Your task to perform on an android device: create a new album in the google photos Image 0: 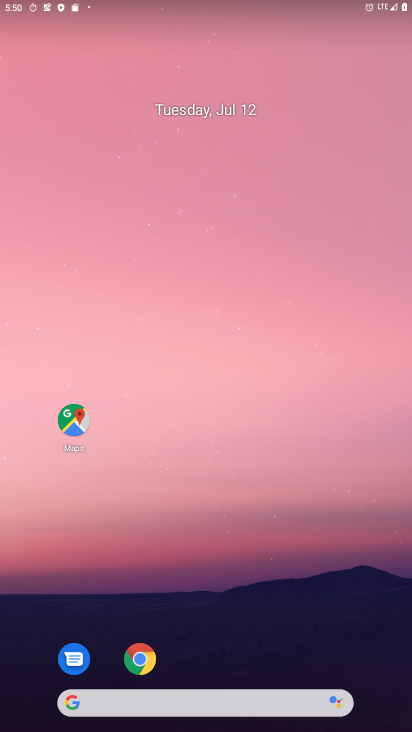
Step 0: drag from (174, 609) to (163, 183)
Your task to perform on an android device: create a new album in the google photos Image 1: 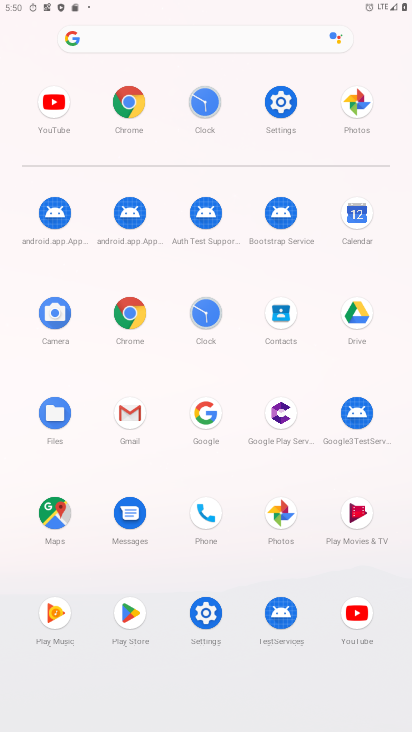
Step 1: click (275, 533)
Your task to perform on an android device: create a new album in the google photos Image 2: 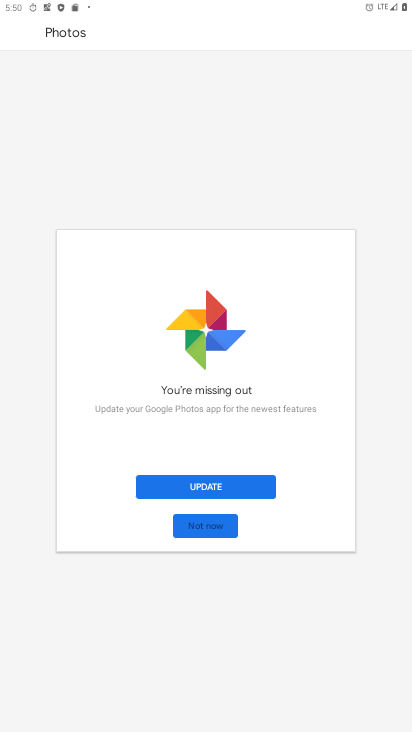
Step 2: click (193, 529)
Your task to perform on an android device: create a new album in the google photos Image 3: 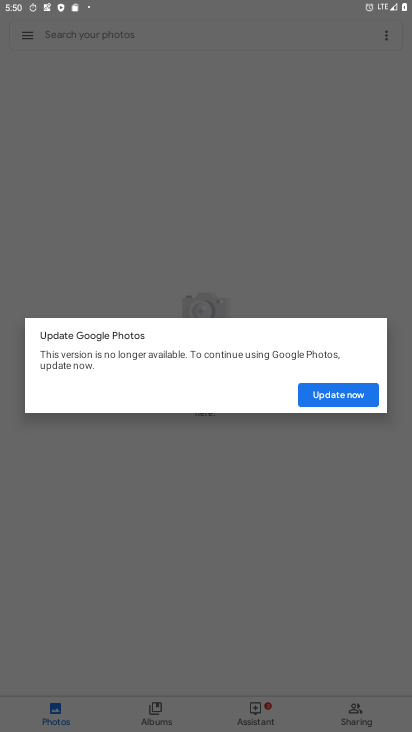
Step 3: click (344, 386)
Your task to perform on an android device: create a new album in the google photos Image 4: 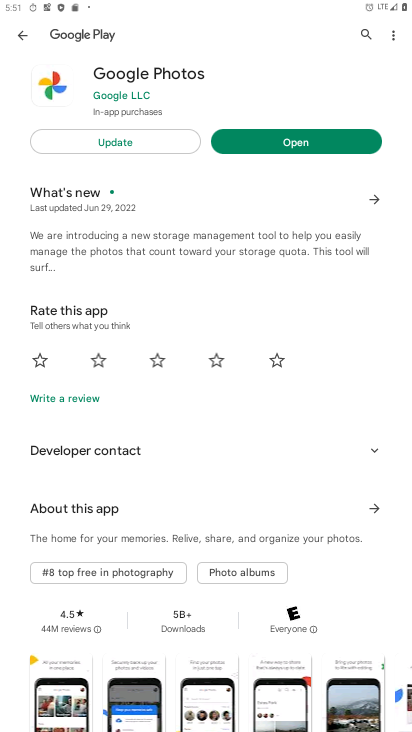
Step 4: click (109, 143)
Your task to perform on an android device: create a new album in the google photos Image 5: 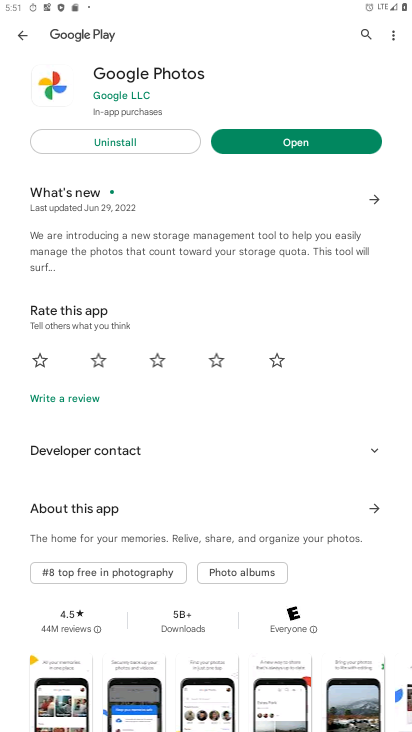
Step 5: click (271, 138)
Your task to perform on an android device: create a new album in the google photos Image 6: 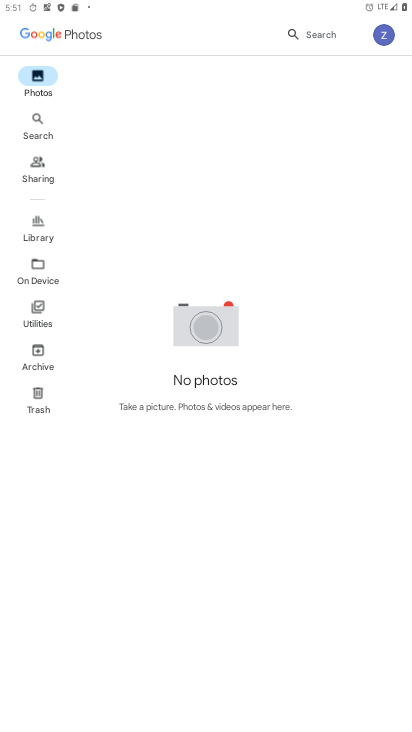
Step 6: click (30, 224)
Your task to perform on an android device: create a new album in the google photos Image 7: 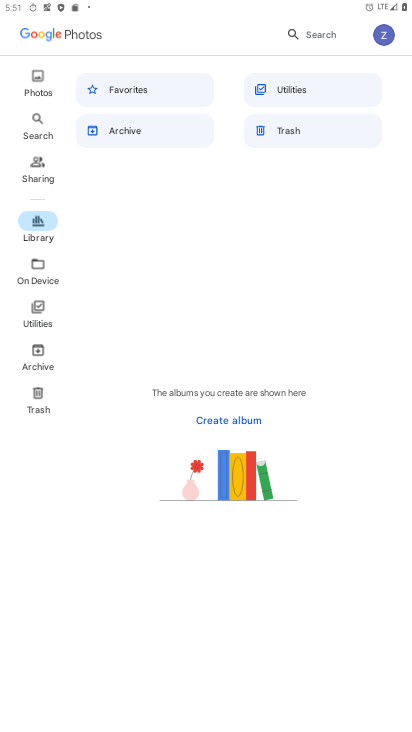
Step 7: drag from (230, 288) to (225, 390)
Your task to perform on an android device: create a new album in the google photos Image 8: 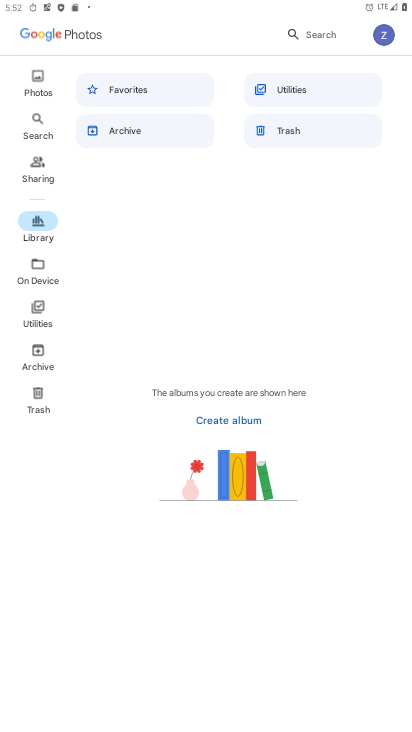
Step 8: click (225, 420)
Your task to perform on an android device: create a new album in the google photos Image 9: 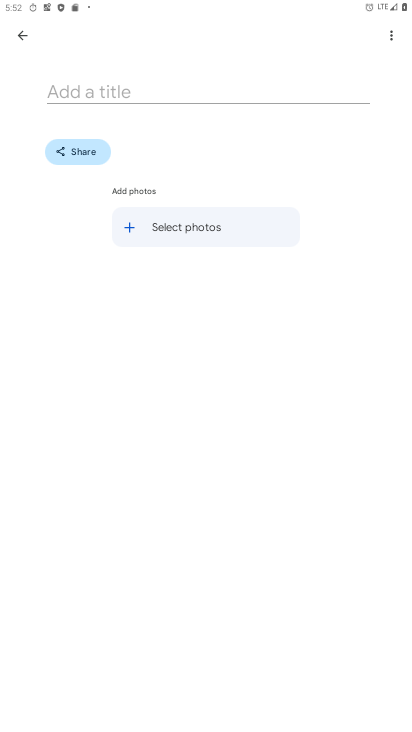
Step 9: click (169, 86)
Your task to perform on an android device: create a new album in the google photos Image 10: 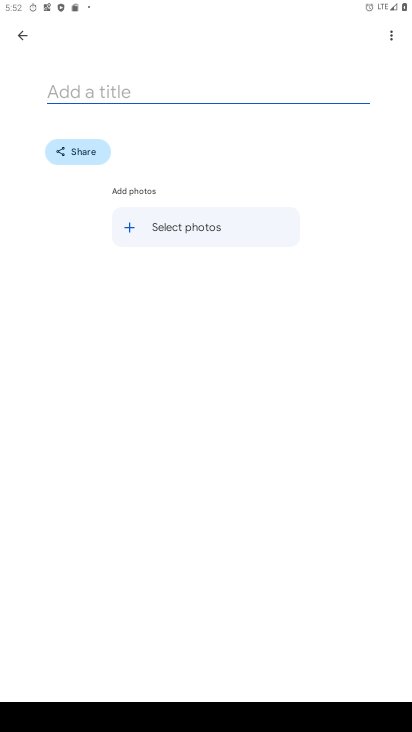
Step 10: type "Panipat"
Your task to perform on an android device: create a new album in the google photos Image 11: 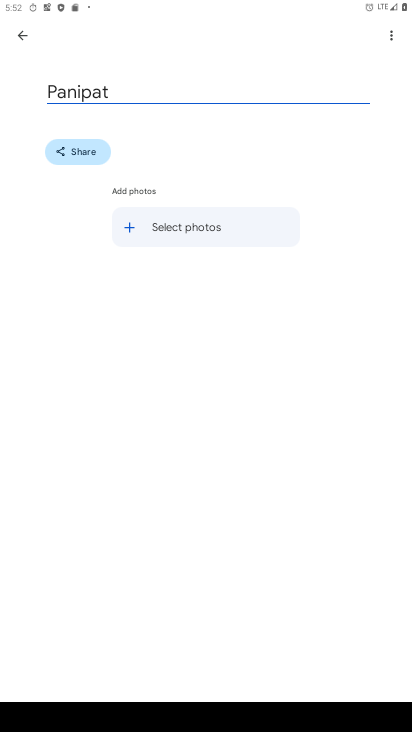
Step 11: click (168, 226)
Your task to perform on an android device: create a new album in the google photos Image 12: 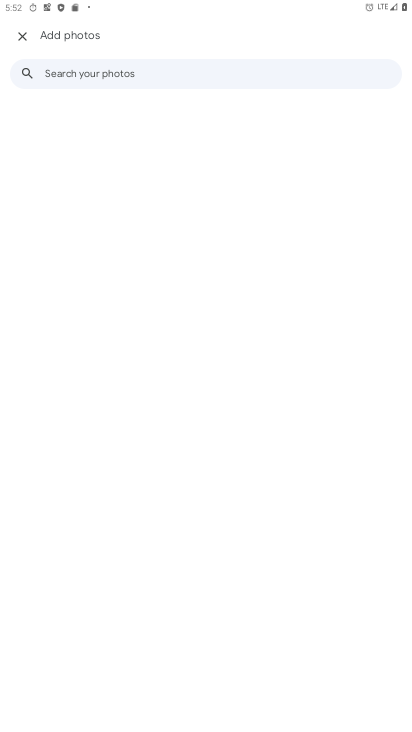
Step 12: click (56, 67)
Your task to perform on an android device: create a new album in the google photos Image 13: 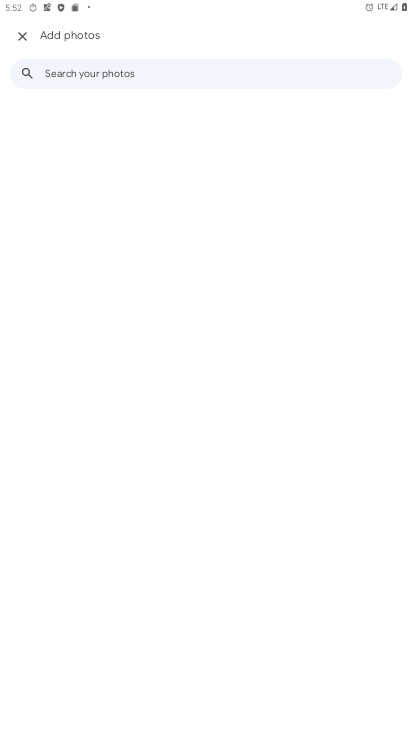
Step 13: click (56, 67)
Your task to perform on an android device: create a new album in the google photos Image 14: 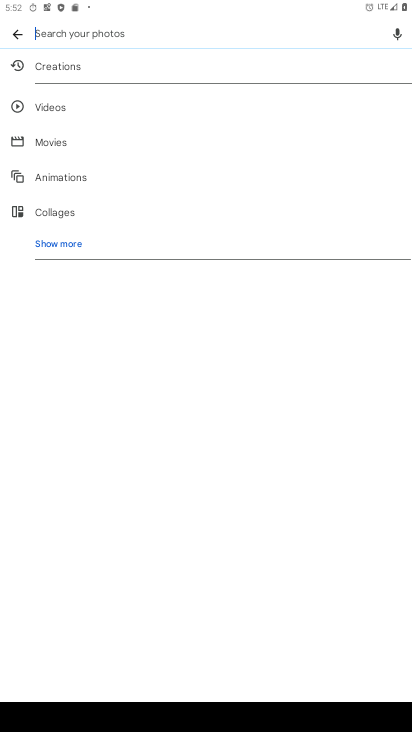
Step 14: click (74, 239)
Your task to perform on an android device: create a new album in the google photos Image 15: 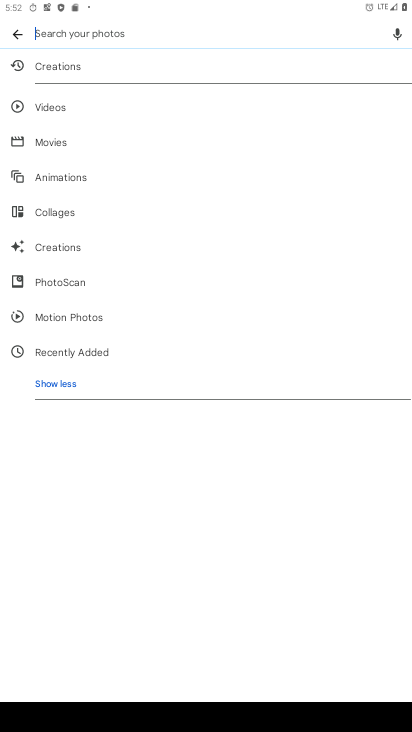
Step 15: click (53, 254)
Your task to perform on an android device: create a new album in the google photos Image 16: 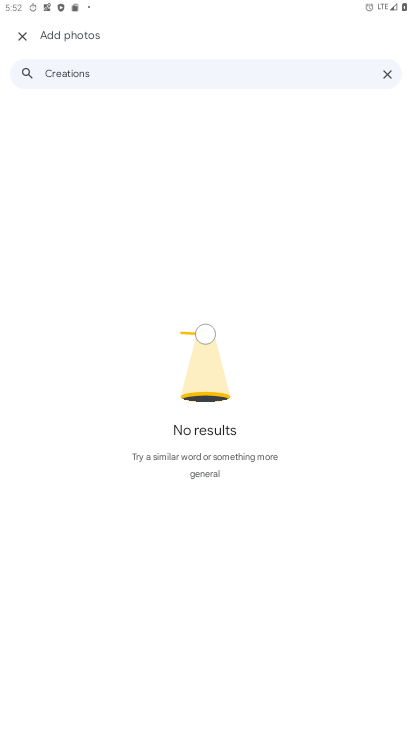
Step 16: task complete